Your task to perform on an android device: change text size in settings app Image 0: 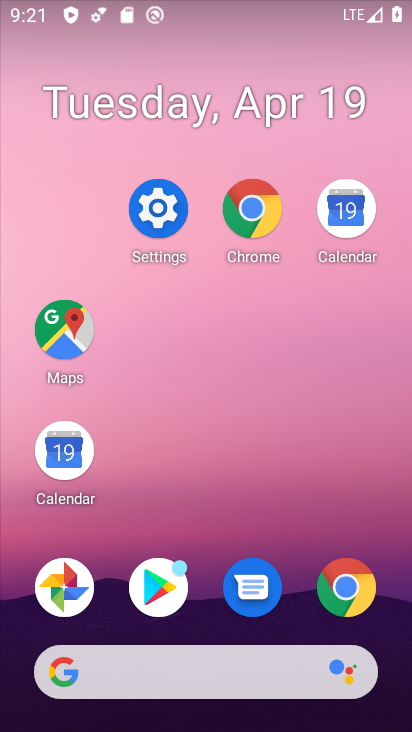
Step 0: drag from (319, 666) to (292, 117)
Your task to perform on an android device: change text size in settings app Image 1: 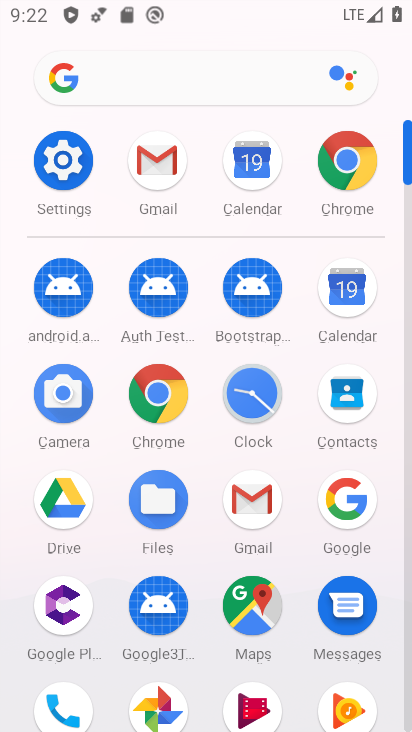
Step 1: click (68, 162)
Your task to perform on an android device: change text size in settings app Image 2: 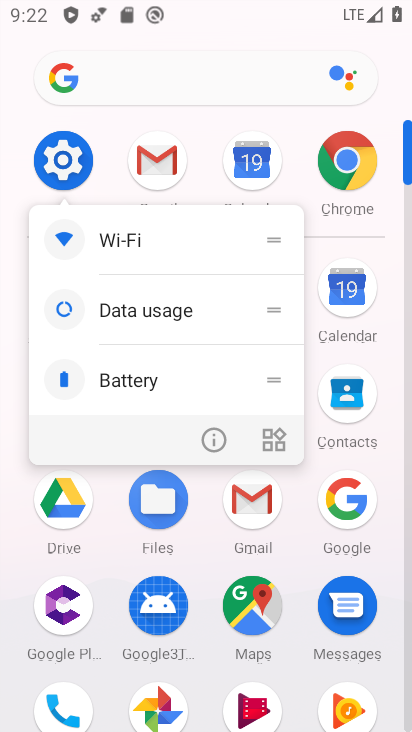
Step 2: click (62, 168)
Your task to perform on an android device: change text size in settings app Image 3: 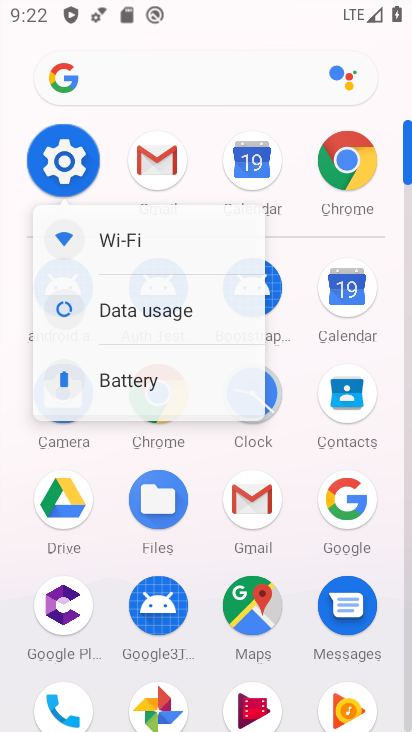
Step 3: click (62, 168)
Your task to perform on an android device: change text size in settings app Image 4: 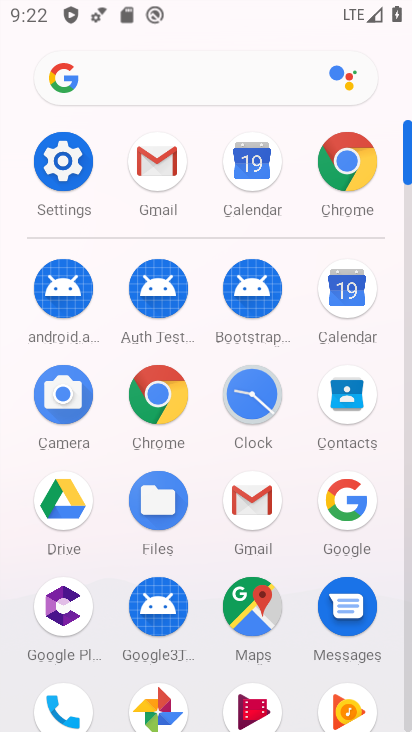
Step 4: click (69, 163)
Your task to perform on an android device: change text size in settings app Image 5: 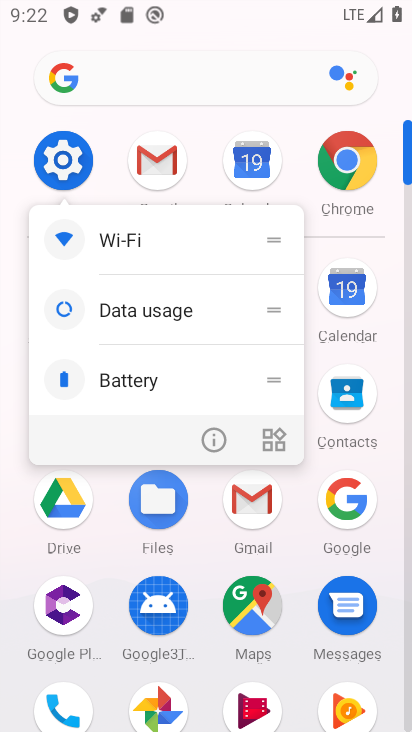
Step 5: click (47, 165)
Your task to perform on an android device: change text size in settings app Image 6: 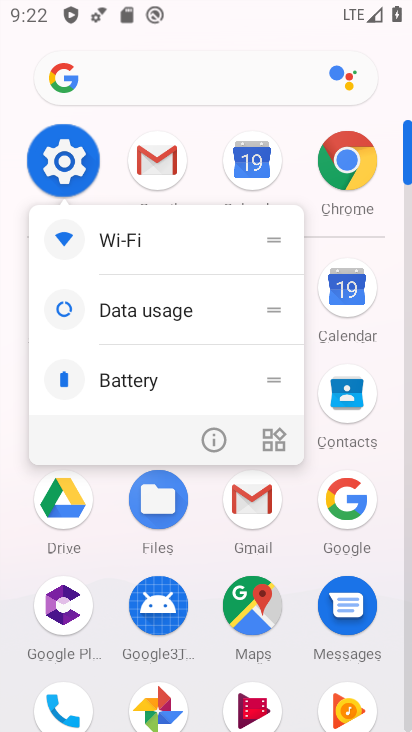
Step 6: click (49, 165)
Your task to perform on an android device: change text size in settings app Image 7: 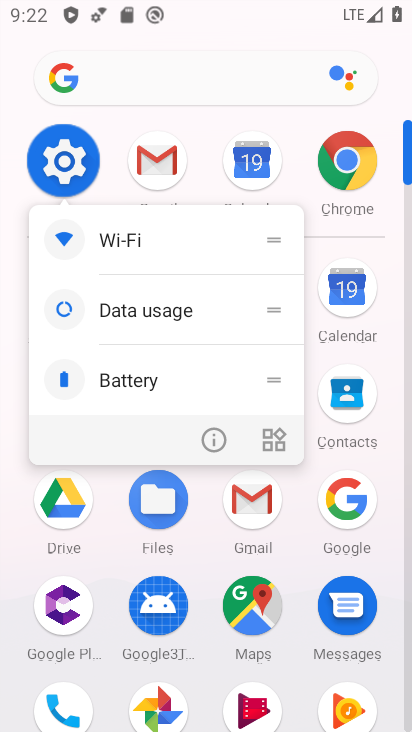
Step 7: click (50, 165)
Your task to perform on an android device: change text size in settings app Image 8: 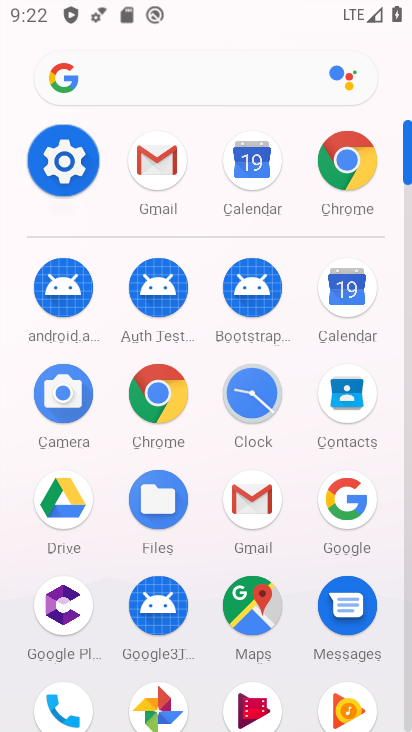
Step 8: click (50, 165)
Your task to perform on an android device: change text size in settings app Image 9: 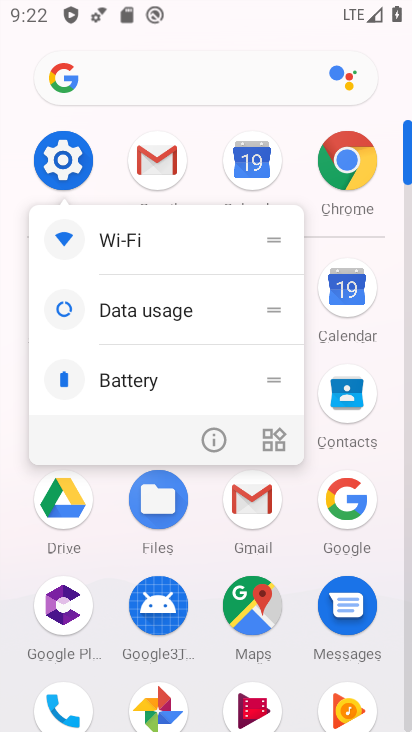
Step 9: click (45, 168)
Your task to perform on an android device: change text size in settings app Image 10: 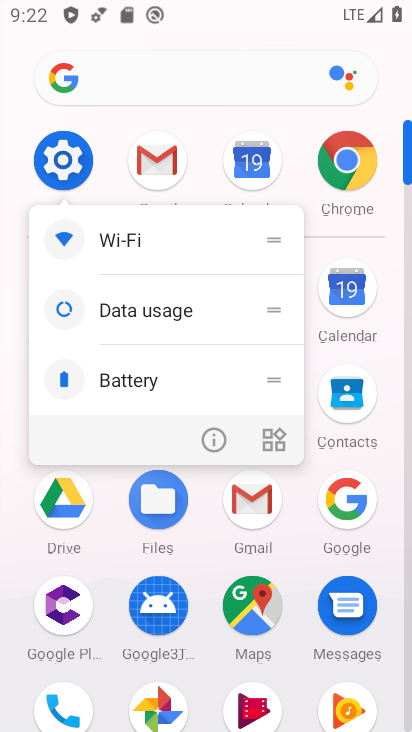
Step 10: click (45, 170)
Your task to perform on an android device: change text size in settings app Image 11: 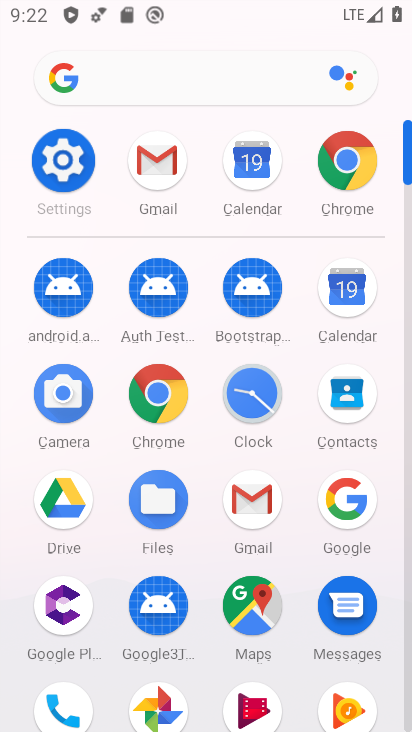
Step 11: click (49, 190)
Your task to perform on an android device: change text size in settings app Image 12: 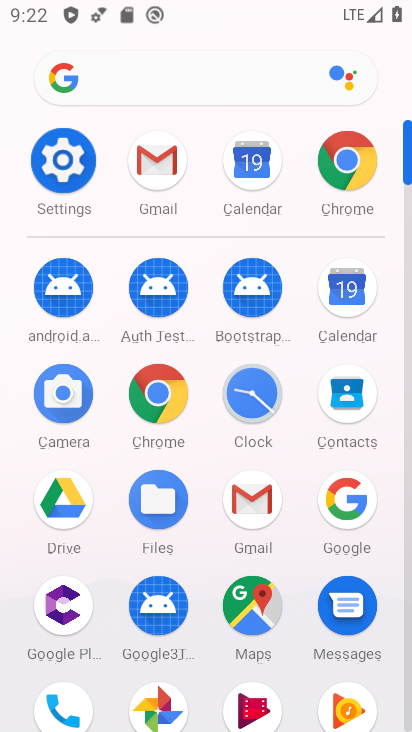
Step 12: click (56, 172)
Your task to perform on an android device: change text size in settings app Image 13: 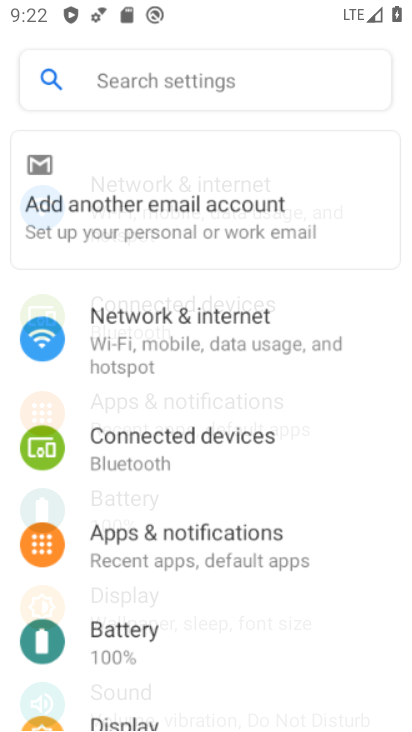
Step 13: click (56, 172)
Your task to perform on an android device: change text size in settings app Image 14: 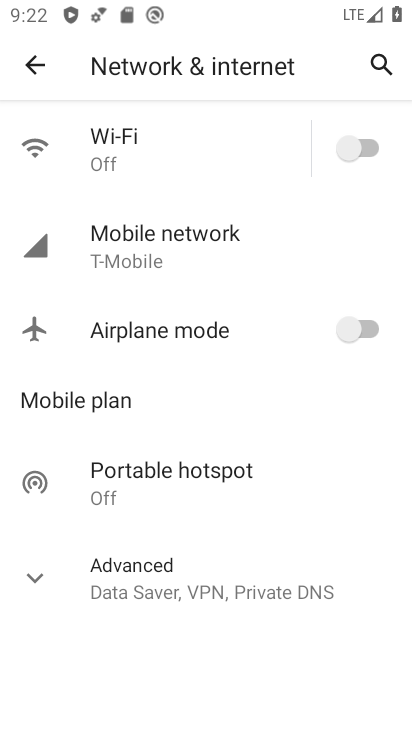
Step 14: click (33, 67)
Your task to perform on an android device: change text size in settings app Image 15: 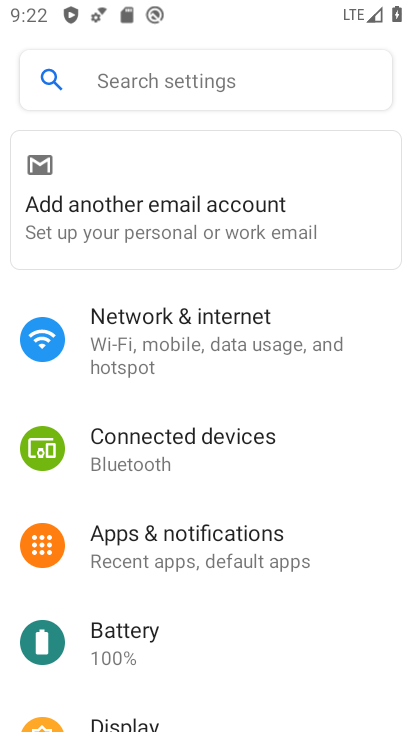
Step 15: drag from (168, 575) to (152, 209)
Your task to perform on an android device: change text size in settings app Image 16: 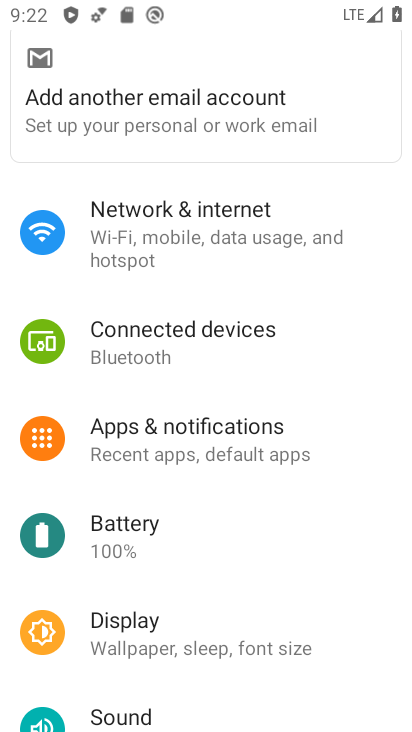
Step 16: drag from (248, 517) to (283, 195)
Your task to perform on an android device: change text size in settings app Image 17: 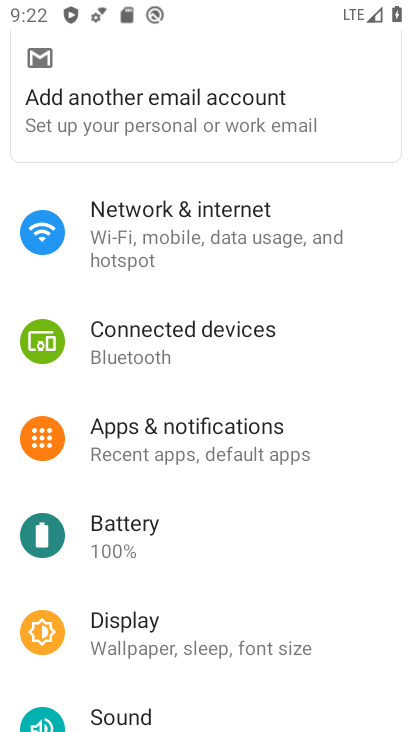
Step 17: click (137, 640)
Your task to perform on an android device: change text size in settings app Image 18: 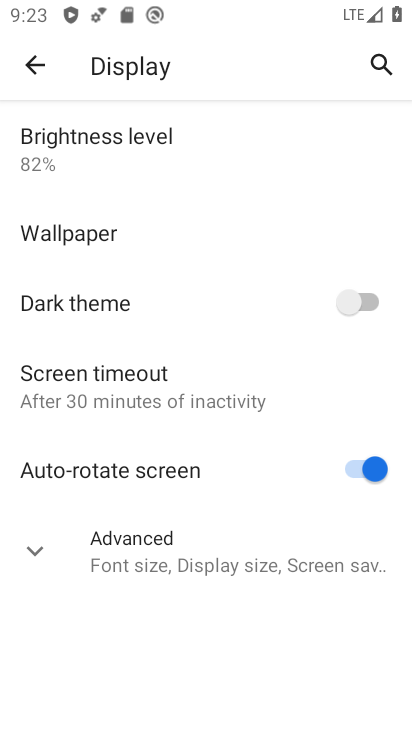
Step 18: click (143, 559)
Your task to perform on an android device: change text size in settings app Image 19: 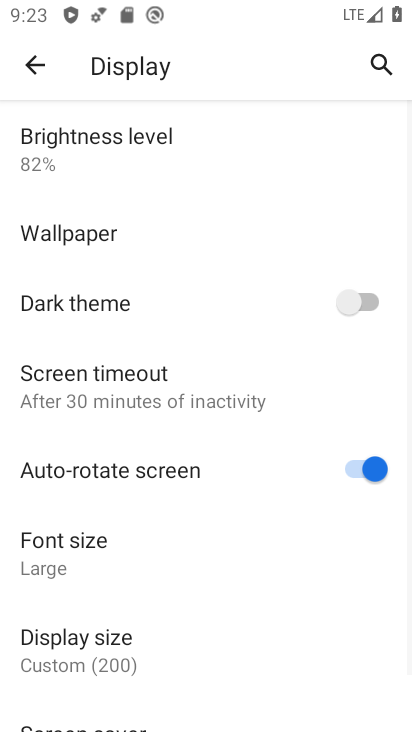
Step 19: click (55, 541)
Your task to perform on an android device: change text size in settings app Image 20: 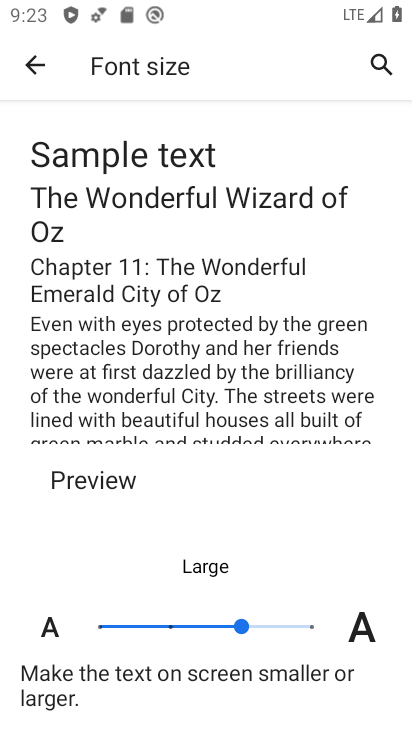
Step 20: click (168, 622)
Your task to perform on an android device: change text size in settings app Image 21: 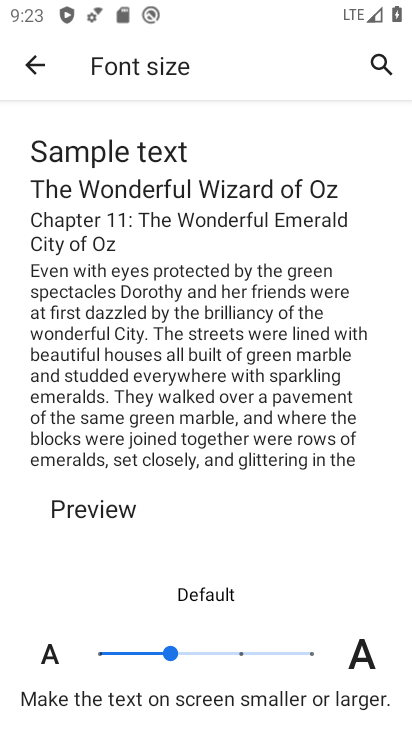
Step 21: task complete